Your task to perform on an android device: show emergency info Image 0: 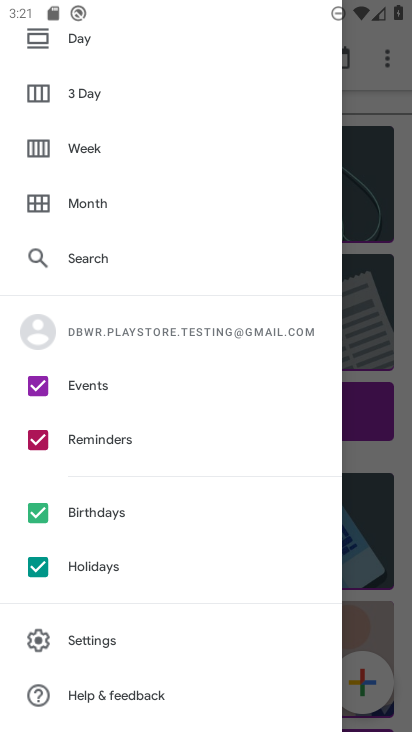
Step 0: drag from (180, 622) to (239, 129)
Your task to perform on an android device: show emergency info Image 1: 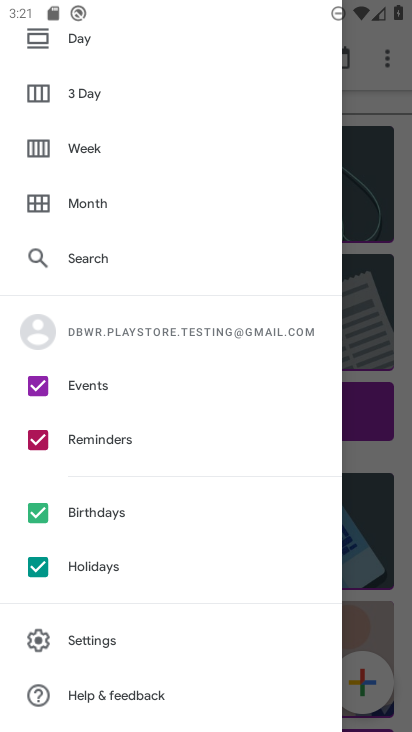
Step 1: press home button
Your task to perform on an android device: show emergency info Image 2: 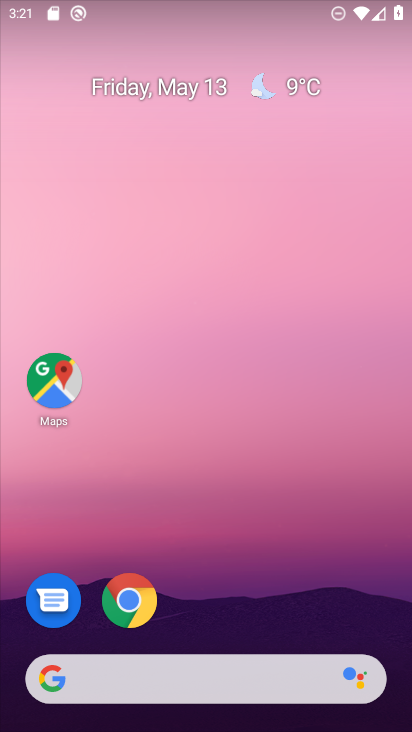
Step 2: drag from (219, 646) to (220, 158)
Your task to perform on an android device: show emergency info Image 3: 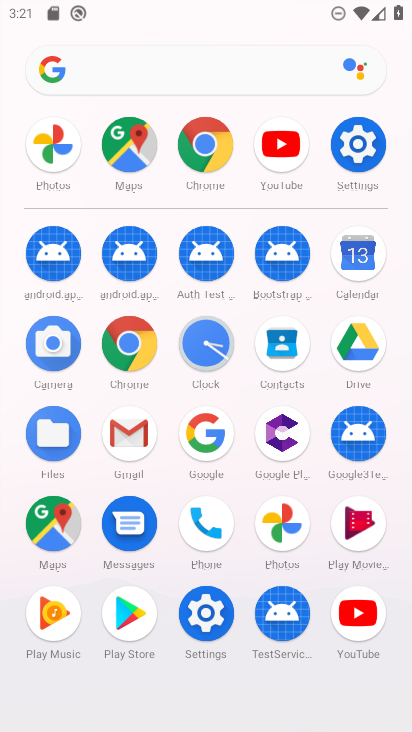
Step 3: click (208, 601)
Your task to perform on an android device: show emergency info Image 4: 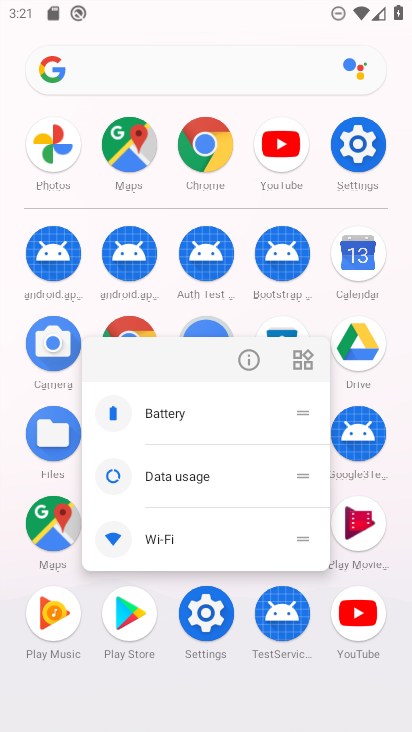
Step 4: click (251, 359)
Your task to perform on an android device: show emergency info Image 5: 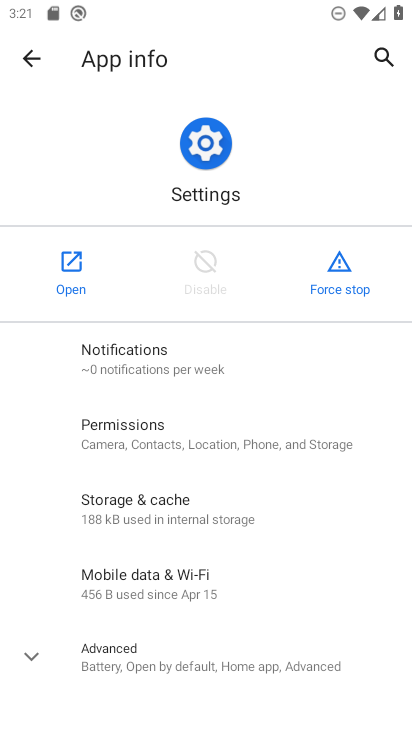
Step 5: click (82, 256)
Your task to perform on an android device: show emergency info Image 6: 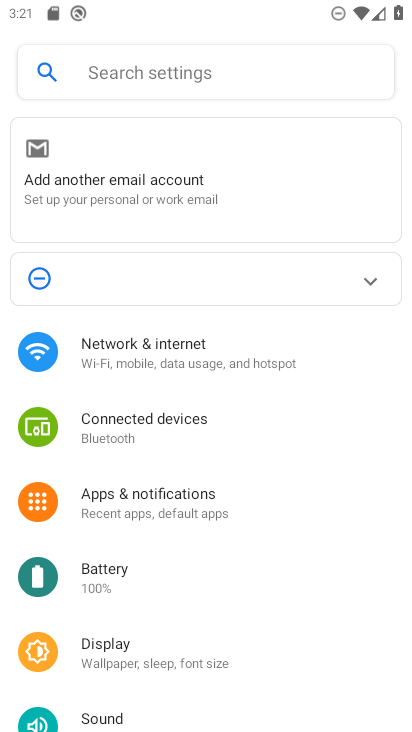
Step 6: drag from (233, 646) to (310, 185)
Your task to perform on an android device: show emergency info Image 7: 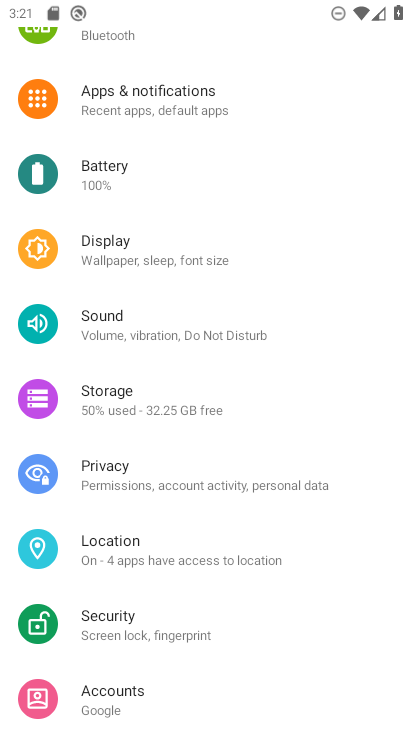
Step 7: drag from (217, 627) to (310, 53)
Your task to perform on an android device: show emergency info Image 8: 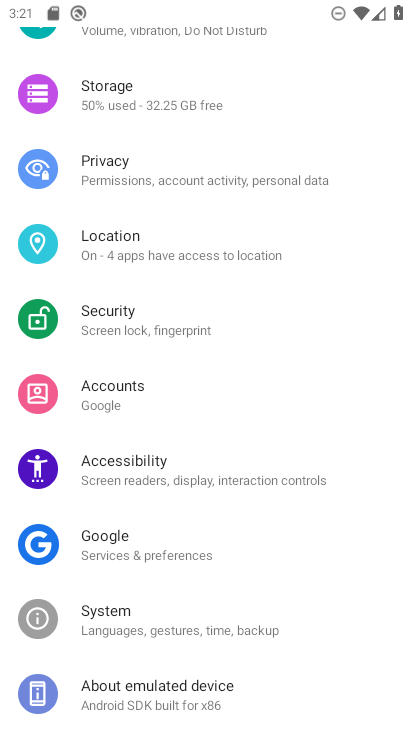
Step 8: drag from (231, 599) to (286, 139)
Your task to perform on an android device: show emergency info Image 9: 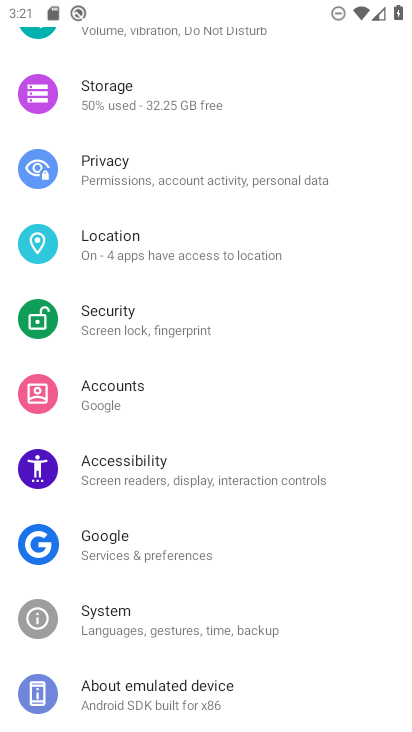
Step 9: click (205, 691)
Your task to perform on an android device: show emergency info Image 10: 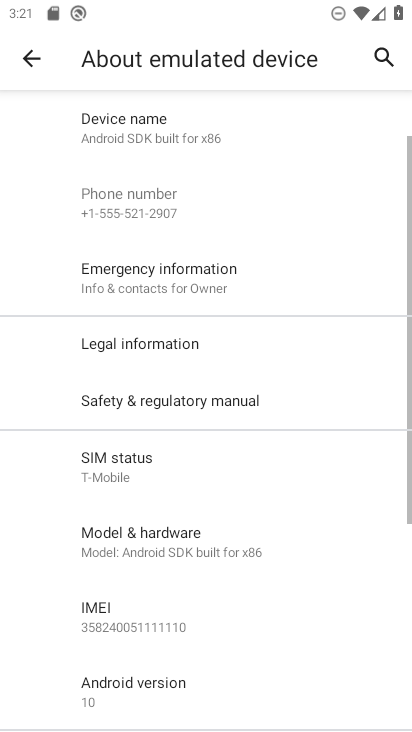
Step 10: click (191, 275)
Your task to perform on an android device: show emergency info Image 11: 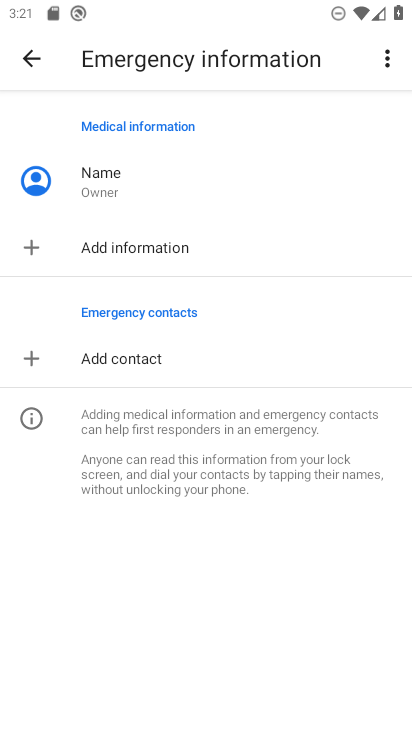
Step 11: task complete